Your task to perform on an android device: View the shopping cart on newegg.com. Search for usb-a to usb-b on newegg.com, select the first entry, and add it to the cart. Image 0: 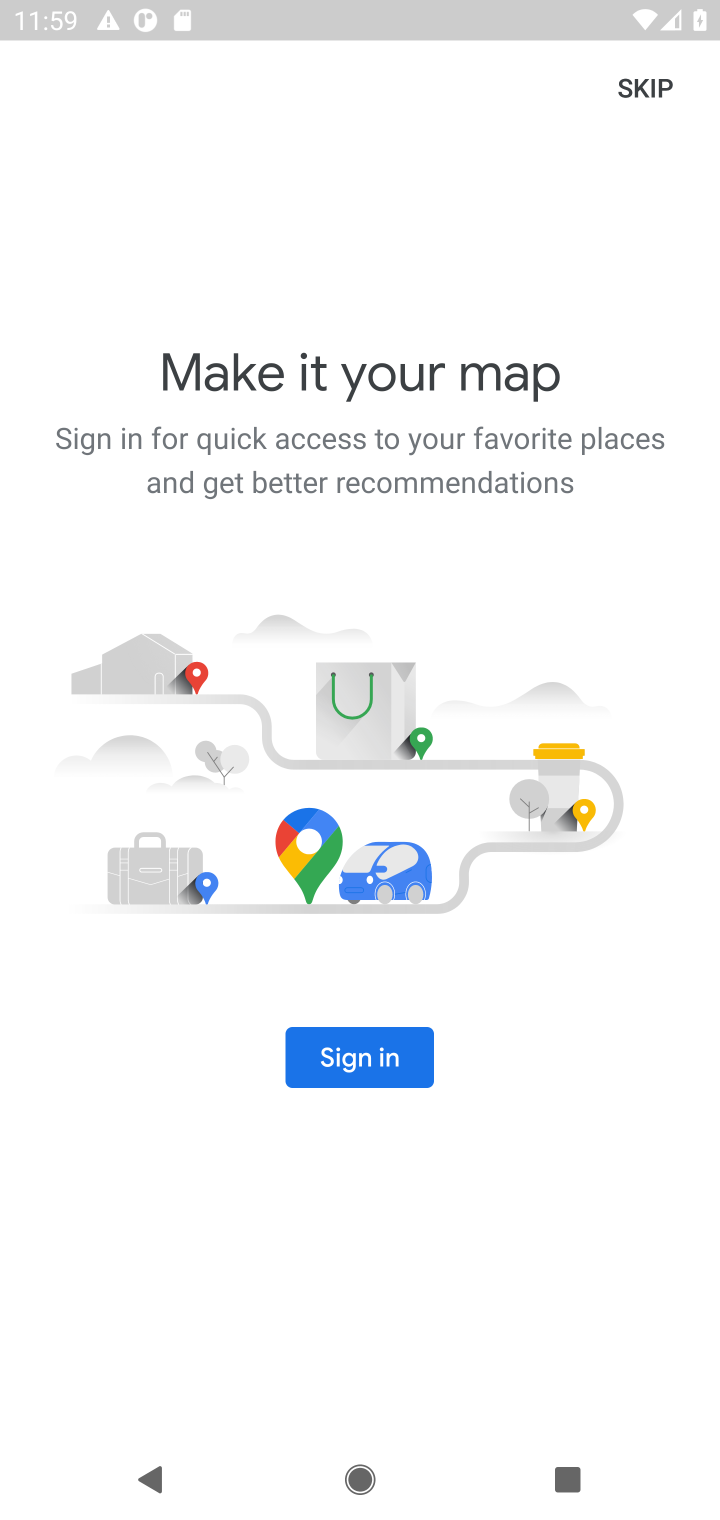
Step 0: press home button
Your task to perform on an android device: View the shopping cart on newegg.com. Search for usb-a to usb-b on newegg.com, select the first entry, and add it to the cart. Image 1: 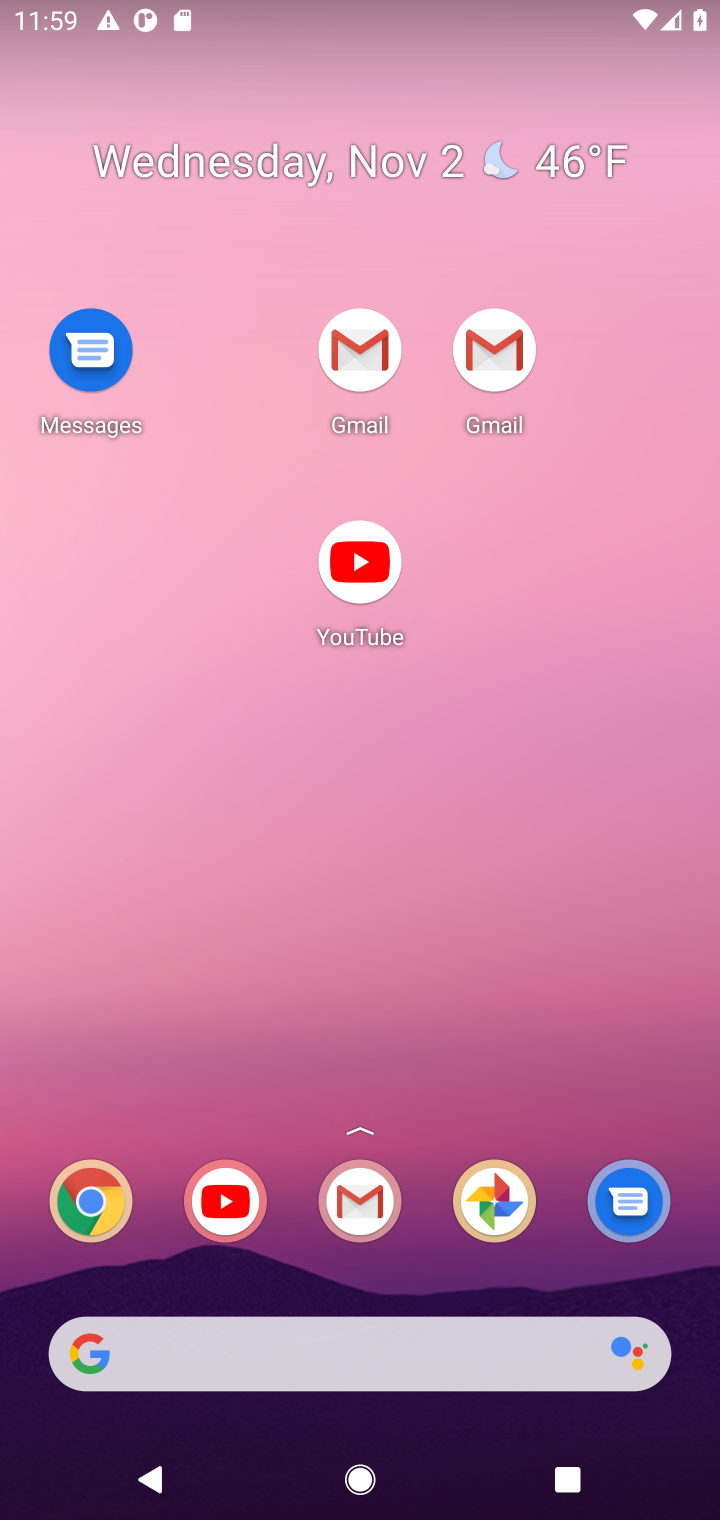
Step 1: drag from (430, 1273) to (520, 71)
Your task to perform on an android device: View the shopping cart on newegg.com. Search for usb-a to usb-b on newegg.com, select the first entry, and add it to the cart. Image 2: 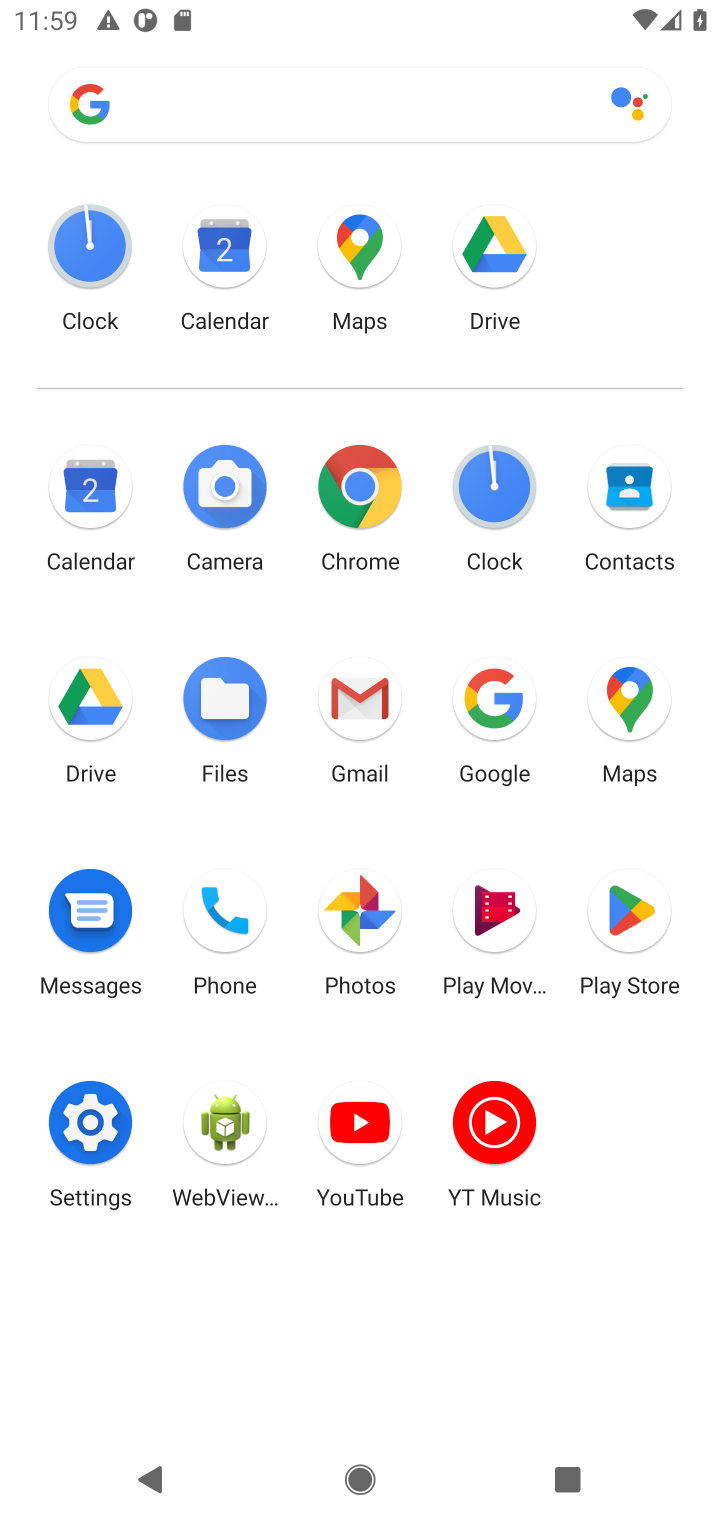
Step 2: click (373, 490)
Your task to perform on an android device: View the shopping cart on newegg.com. Search for usb-a to usb-b on newegg.com, select the first entry, and add it to the cart. Image 3: 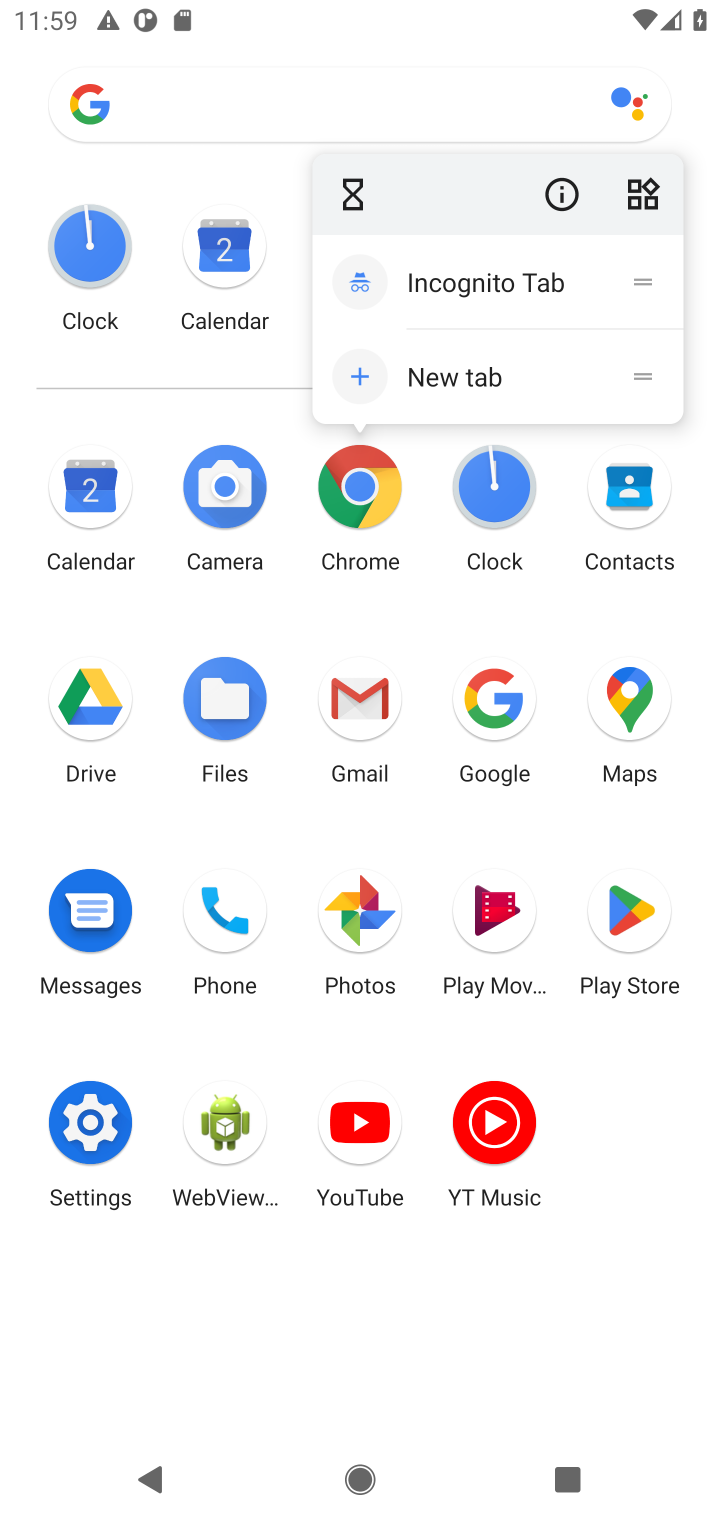
Step 3: click (363, 495)
Your task to perform on an android device: View the shopping cart on newegg.com. Search for usb-a to usb-b on newegg.com, select the first entry, and add it to the cart. Image 4: 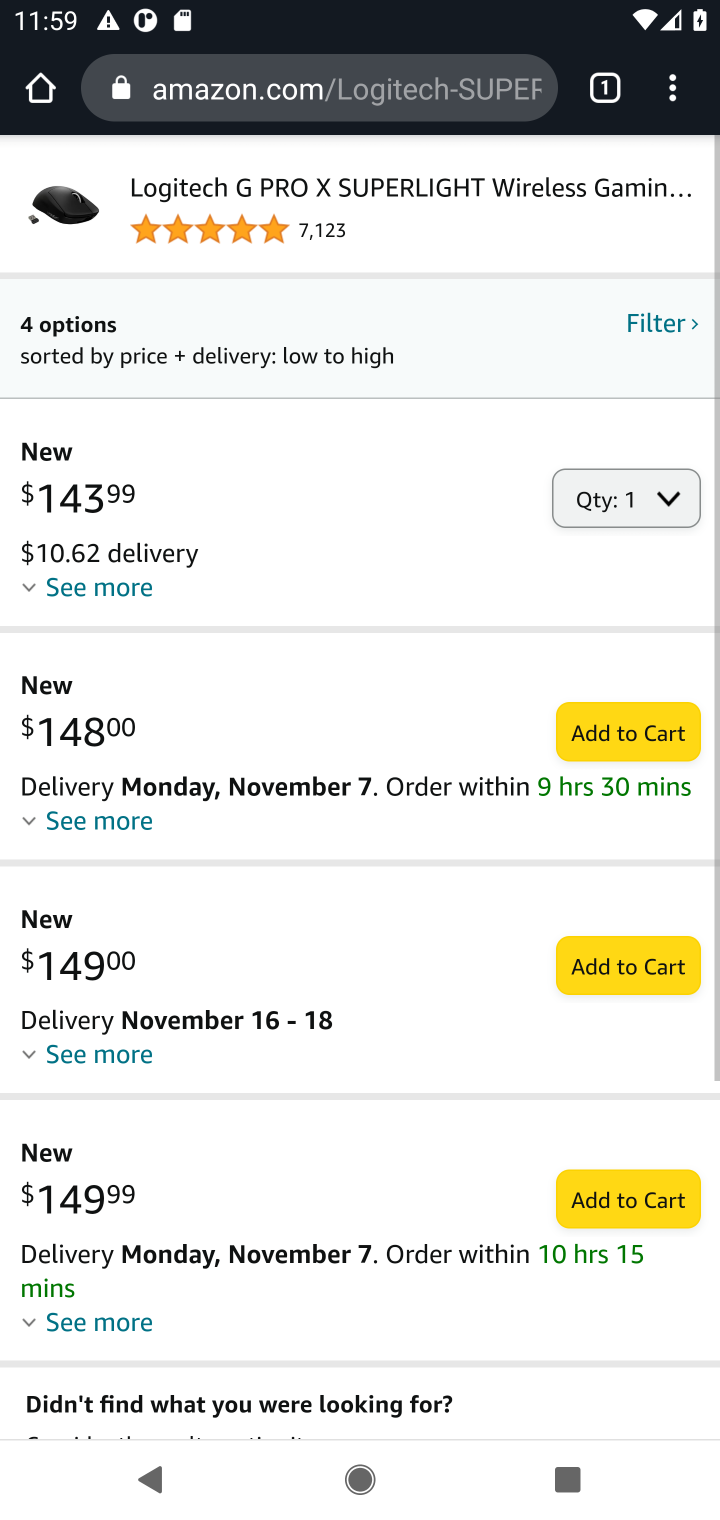
Step 4: click (325, 91)
Your task to perform on an android device: View the shopping cart on newegg.com. Search for usb-a to usb-b on newegg.com, select the first entry, and add it to the cart. Image 5: 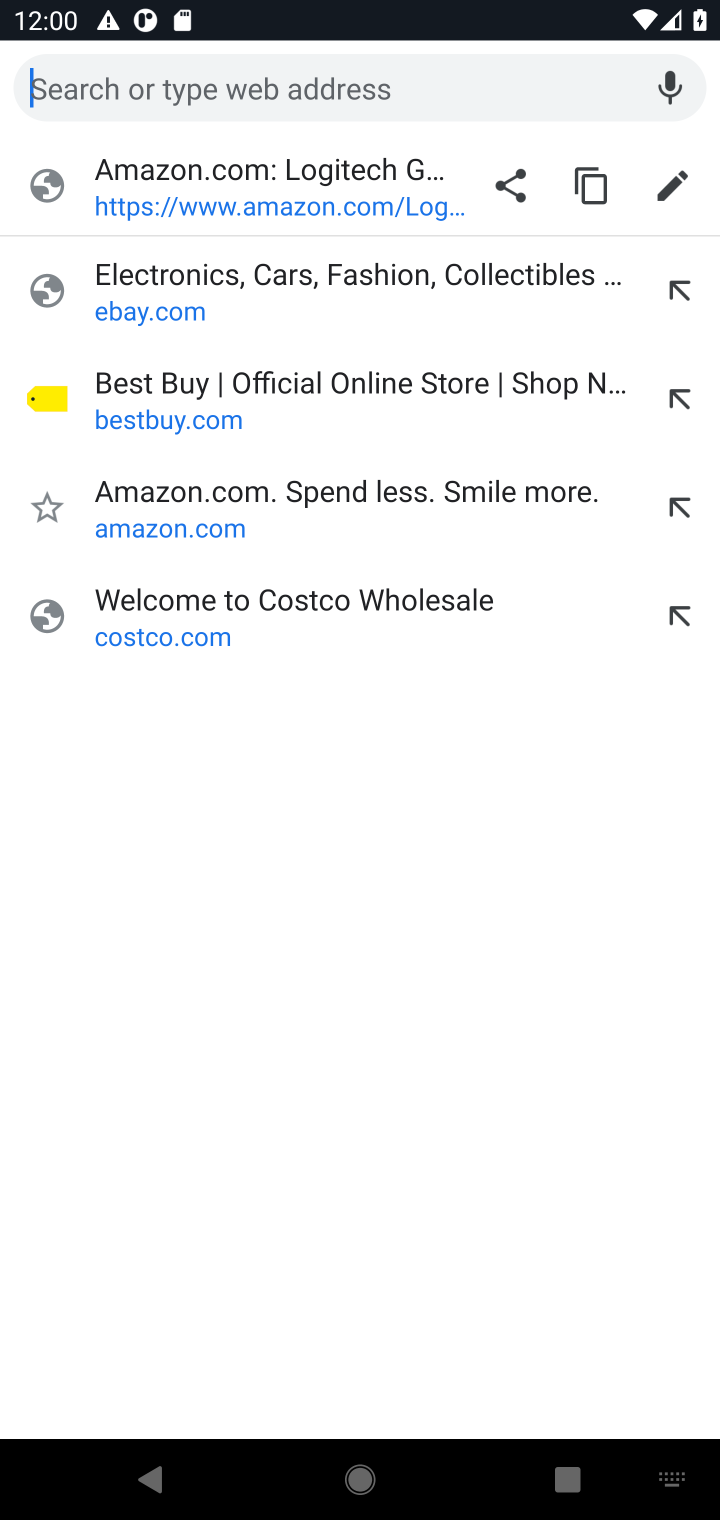
Step 5: type "newegg.com"
Your task to perform on an android device: View the shopping cart on newegg.com. Search for usb-a to usb-b on newegg.com, select the first entry, and add it to the cart. Image 6: 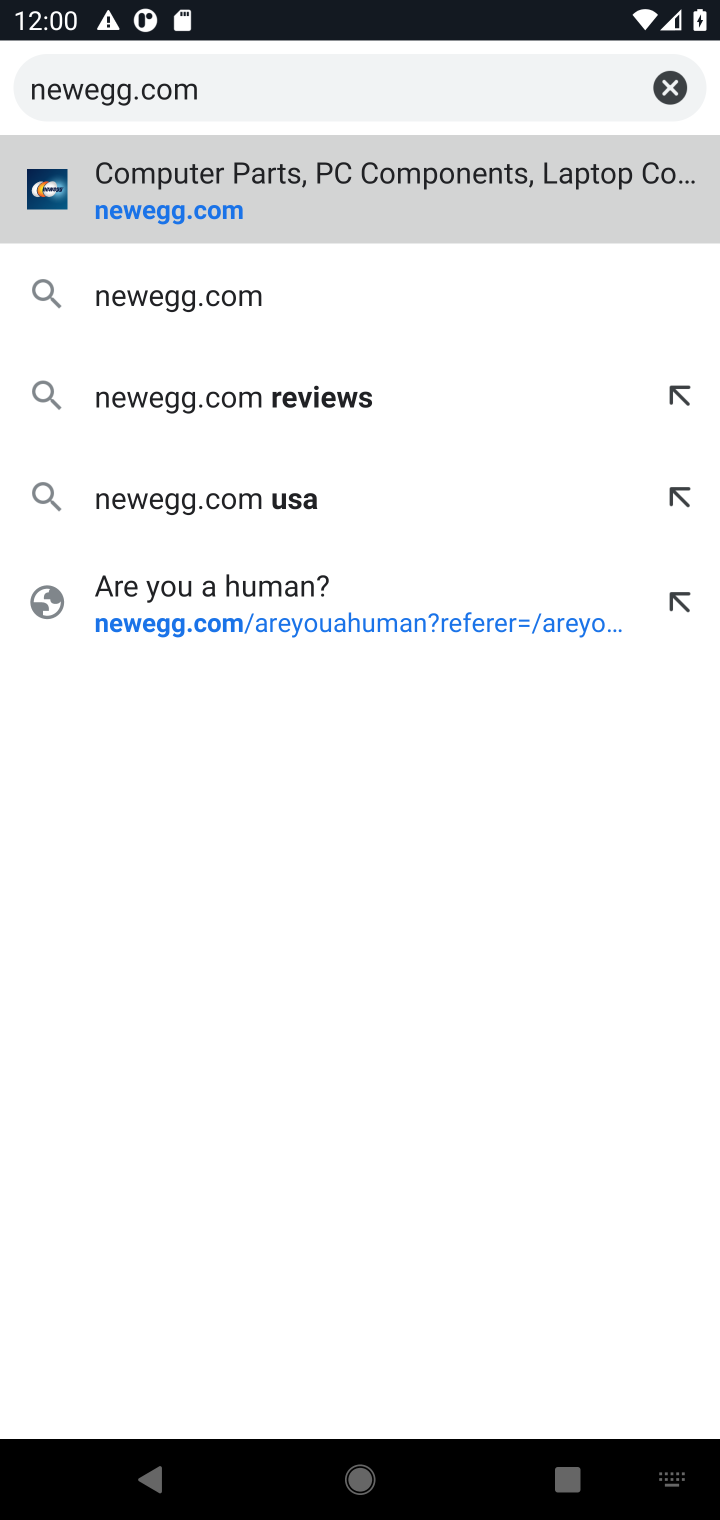
Step 6: press enter
Your task to perform on an android device: View the shopping cart on newegg.com. Search for usb-a to usb-b on newegg.com, select the first entry, and add it to the cart. Image 7: 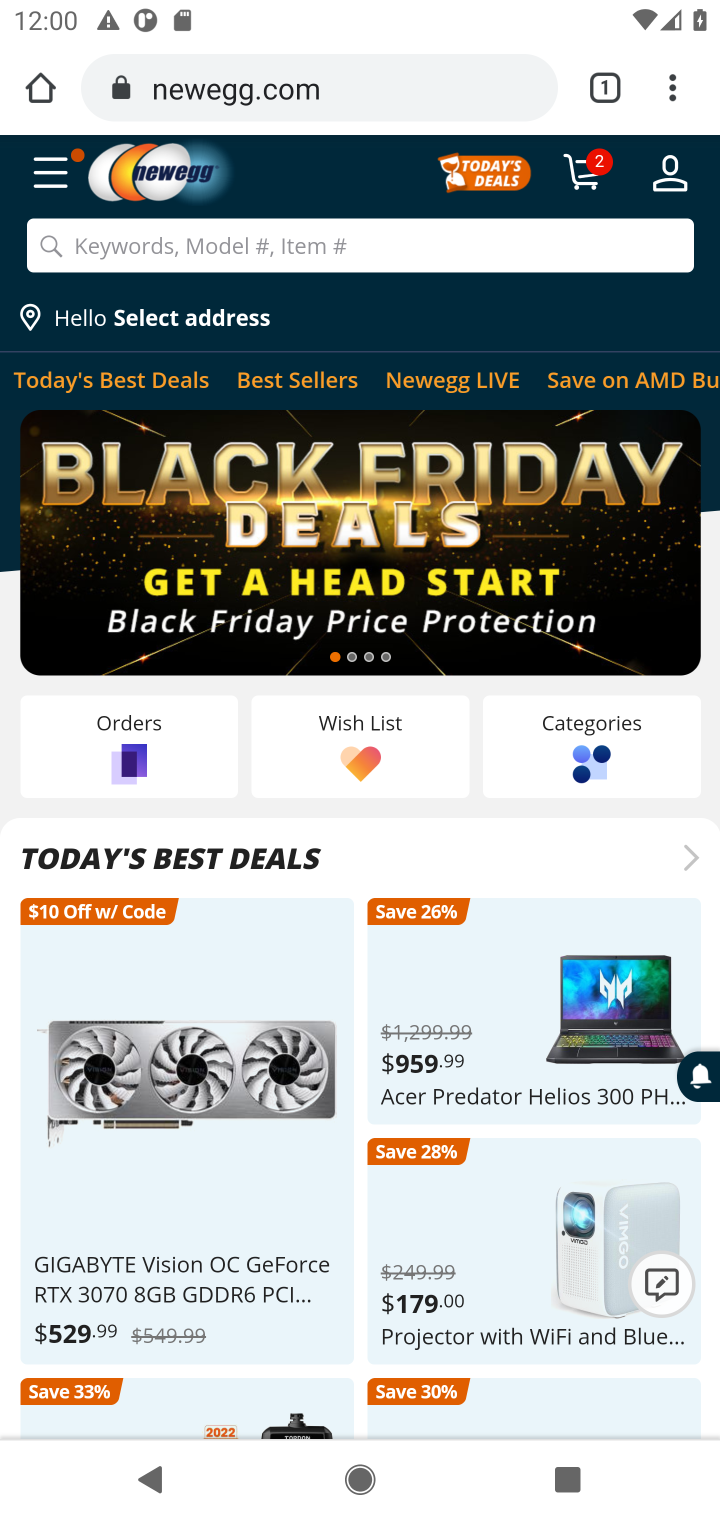
Step 7: click (599, 177)
Your task to perform on an android device: View the shopping cart on newegg.com. Search for usb-a to usb-b on newegg.com, select the first entry, and add it to the cart. Image 8: 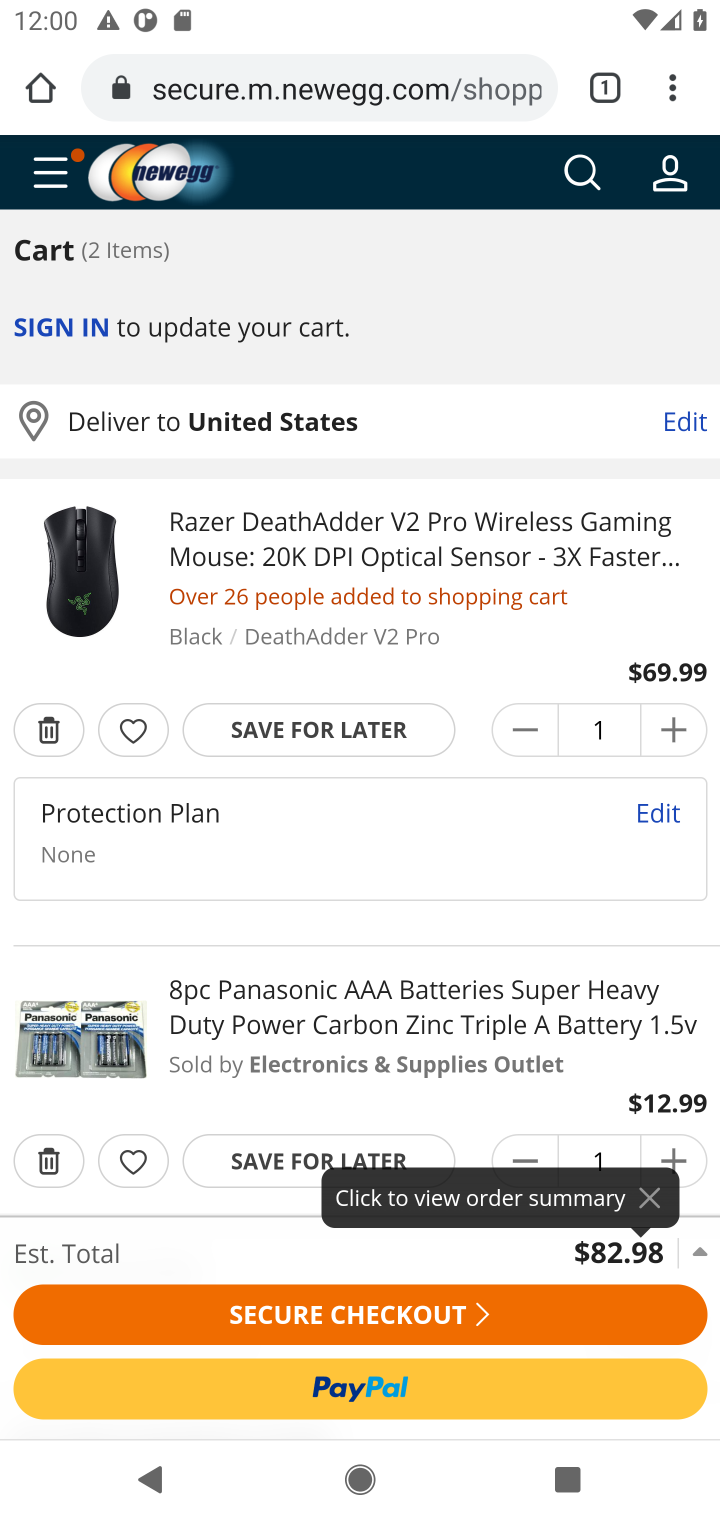
Step 8: click (598, 168)
Your task to perform on an android device: View the shopping cart on newegg.com. Search for usb-a to usb-b on newegg.com, select the first entry, and add it to the cart. Image 9: 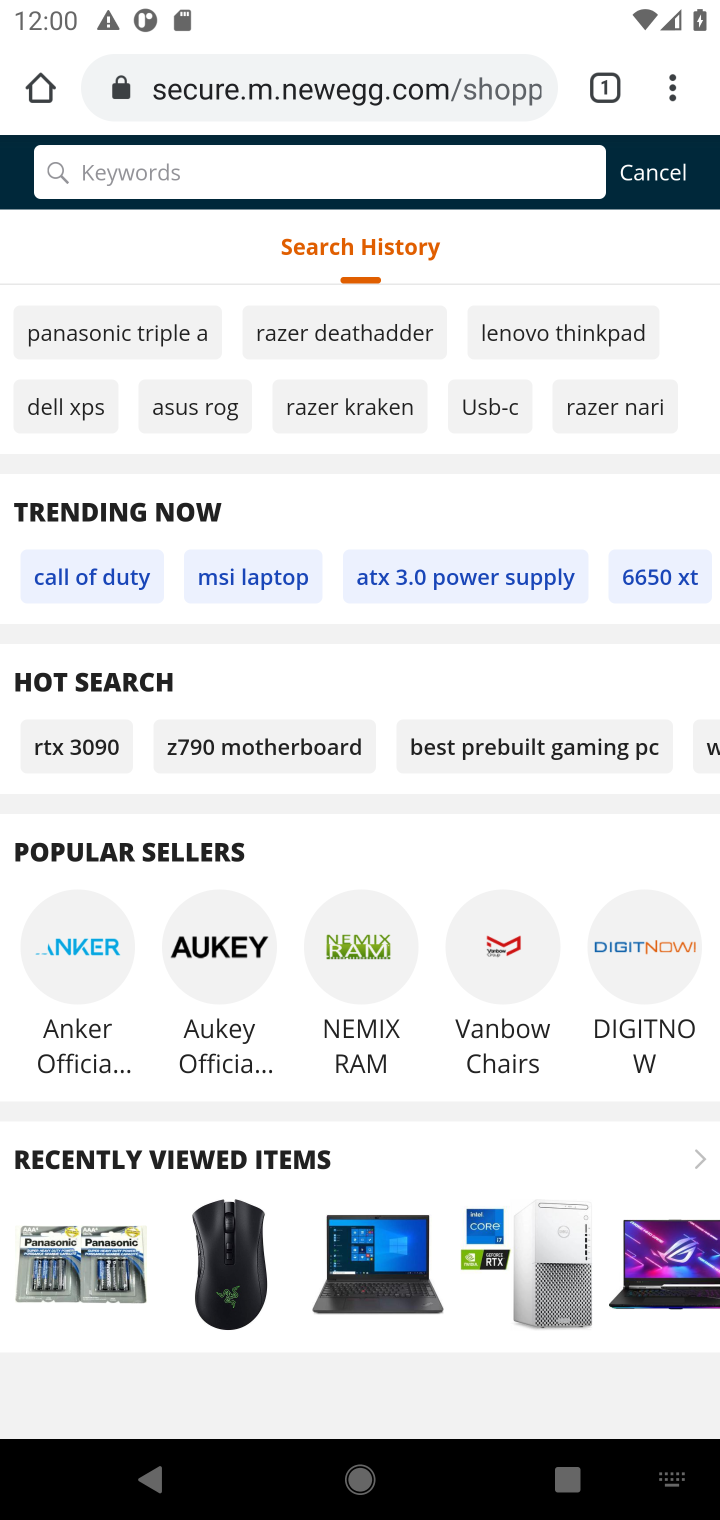
Step 9: type "usb-a to usb-b"
Your task to perform on an android device: View the shopping cart on newegg.com. Search for usb-a to usb-b on newegg.com, select the first entry, and add it to the cart. Image 10: 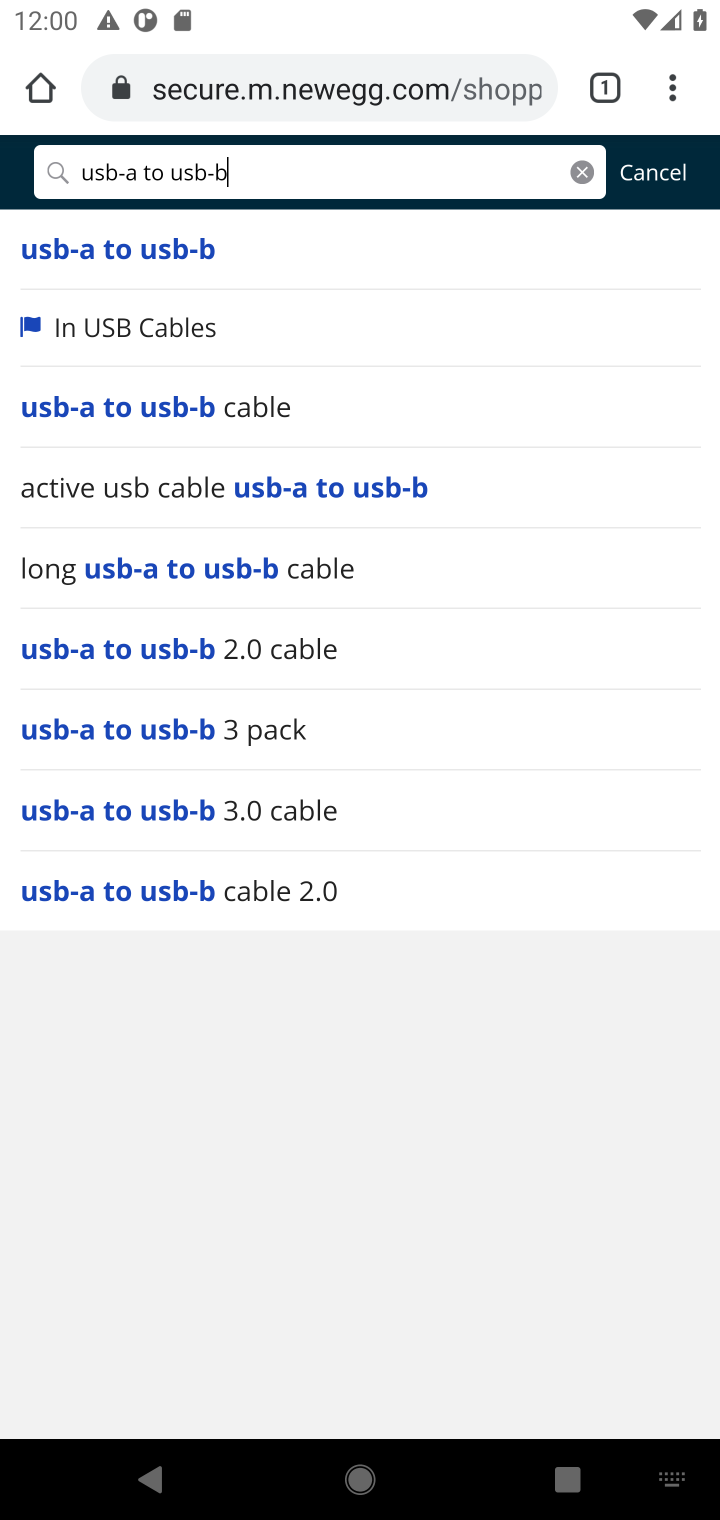
Step 10: press enter
Your task to perform on an android device: View the shopping cart on newegg.com. Search for usb-a to usb-b on newegg.com, select the first entry, and add it to the cart. Image 11: 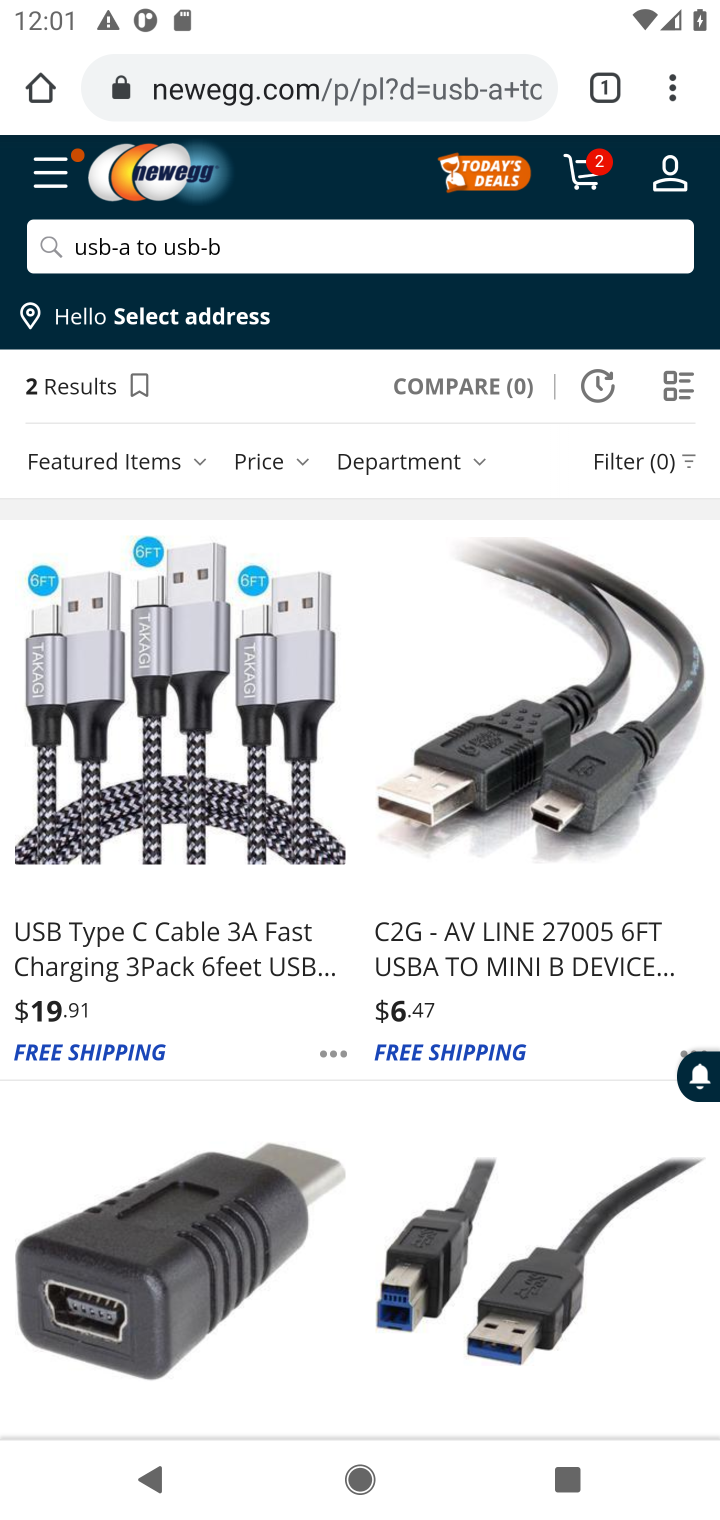
Step 11: task complete